Your task to perform on an android device: turn off picture-in-picture Image 0: 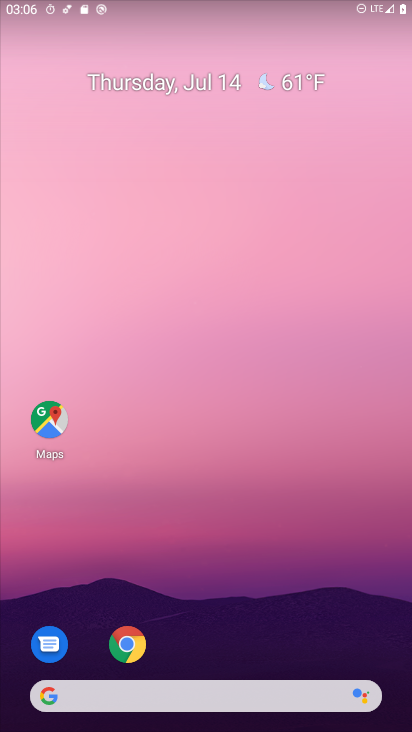
Step 0: drag from (284, 635) to (281, 28)
Your task to perform on an android device: turn off picture-in-picture Image 1: 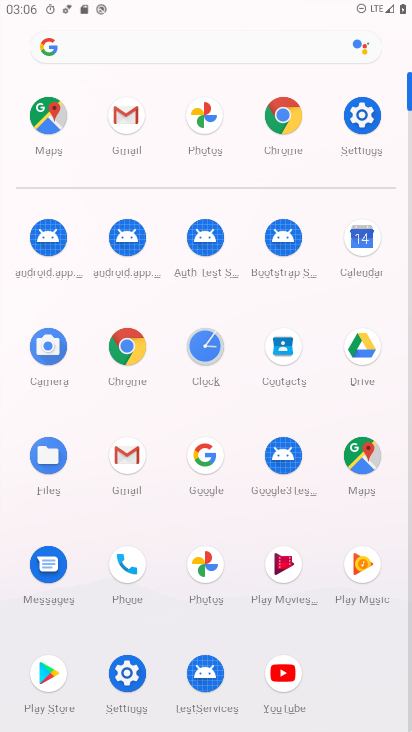
Step 1: click (125, 347)
Your task to perform on an android device: turn off picture-in-picture Image 2: 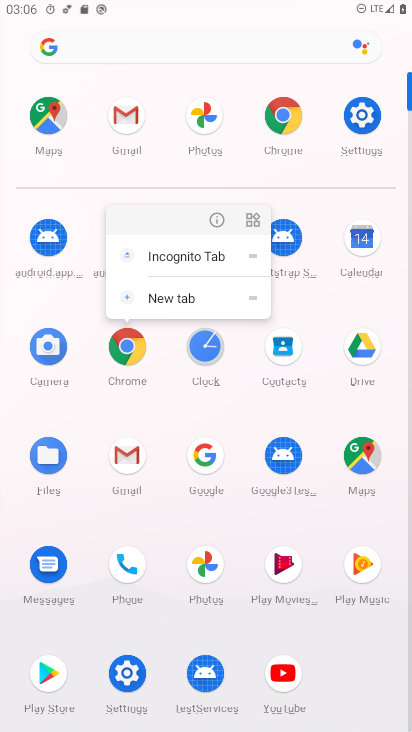
Step 2: click (214, 225)
Your task to perform on an android device: turn off picture-in-picture Image 3: 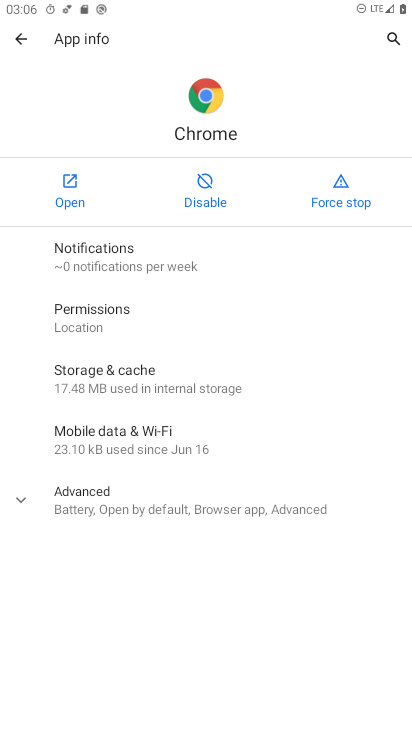
Step 3: click (135, 508)
Your task to perform on an android device: turn off picture-in-picture Image 4: 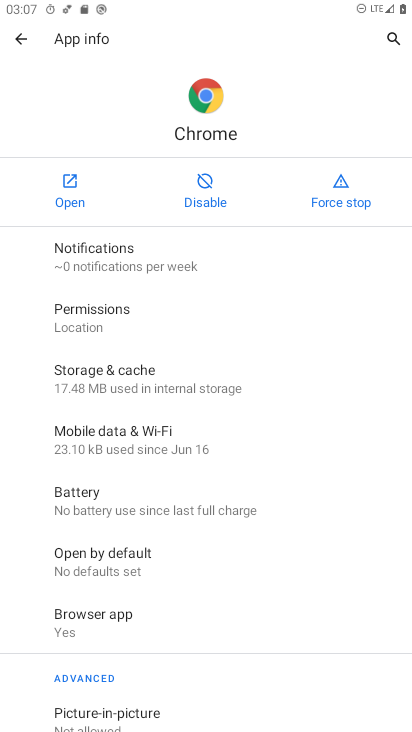
Step 4: drag from (235, 660) to (230, 190)
Your task to perform on an android device: turn off picture-in-picture Image 5: 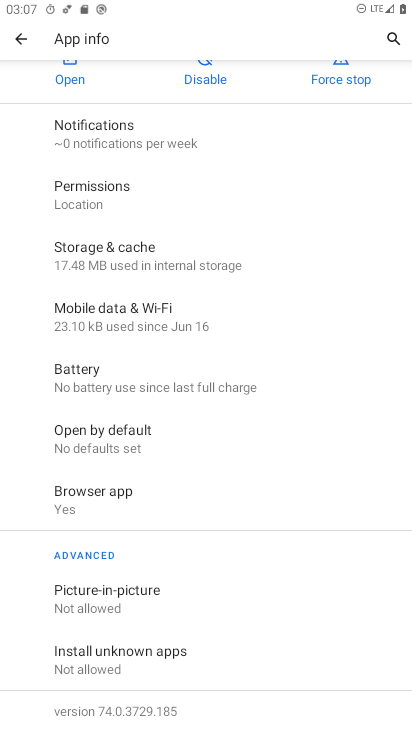
Step 5: click (140, 601)
Your task to perform on an android device: turn off picture-in-picture Image 6: 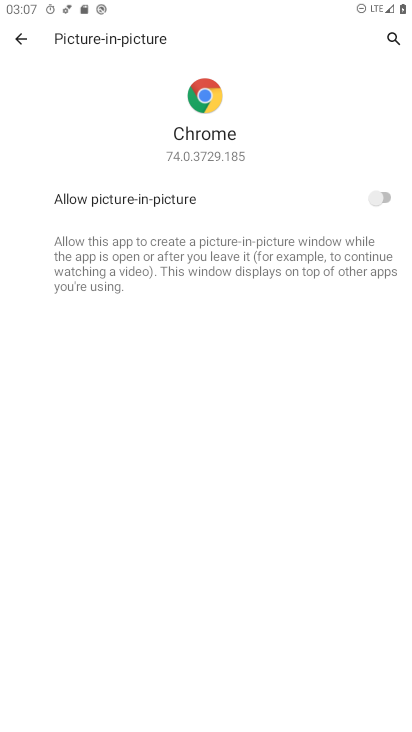
Step 6: task complete